Your task to perform on an android device: Open Chrome and go to settings Image 0: 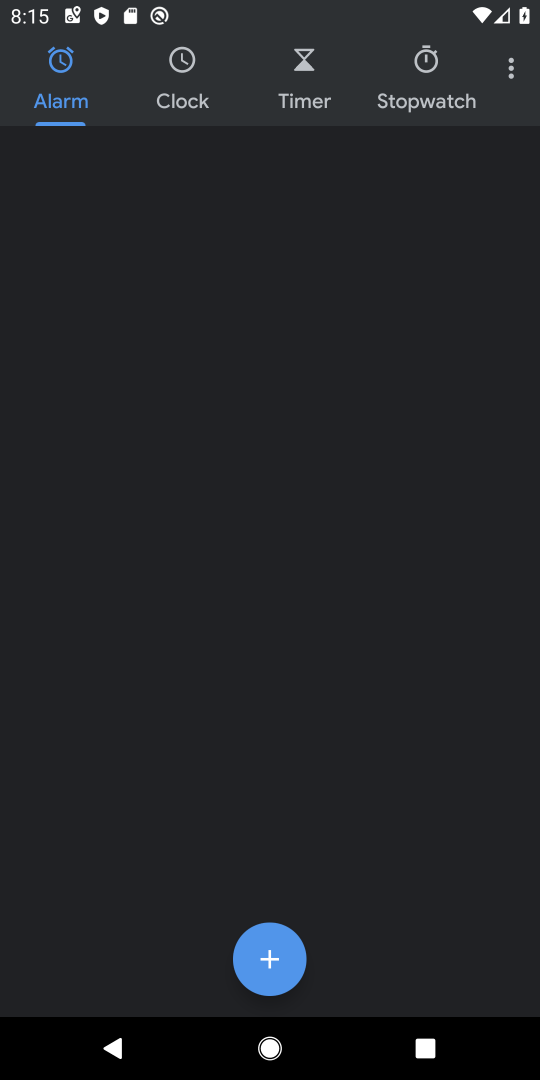
Step 0: press home button
Your task to perform on an android device: Open Chrome and go to settings Image 1: 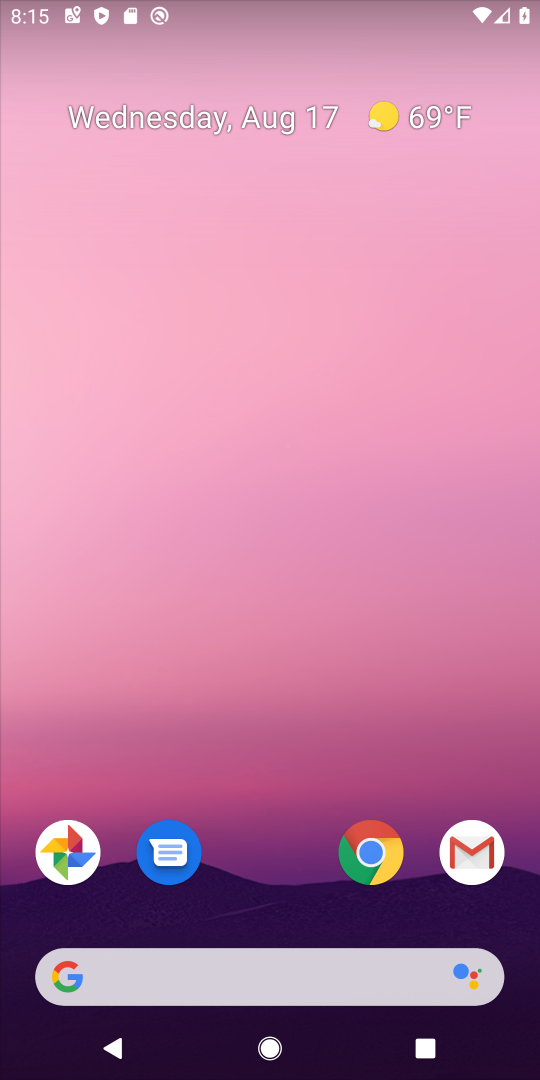
Step 1: click (368, 843)
Your task to perform on an android device: Open Chrome and go to settings Image 2: 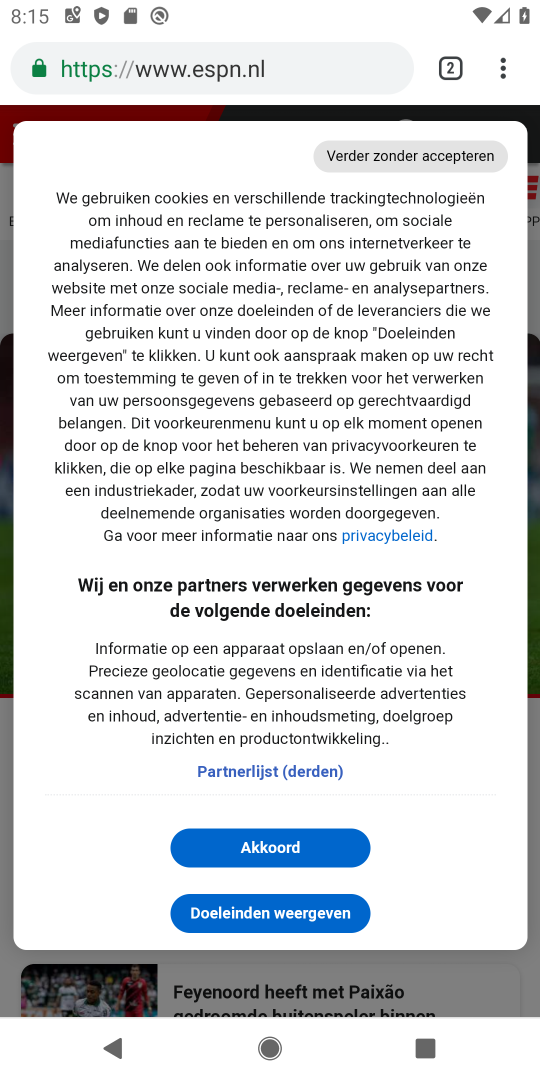
Step 2: click (494, 75)
Your task to perform on an android device: Open Chrome and go to settings Image 3: 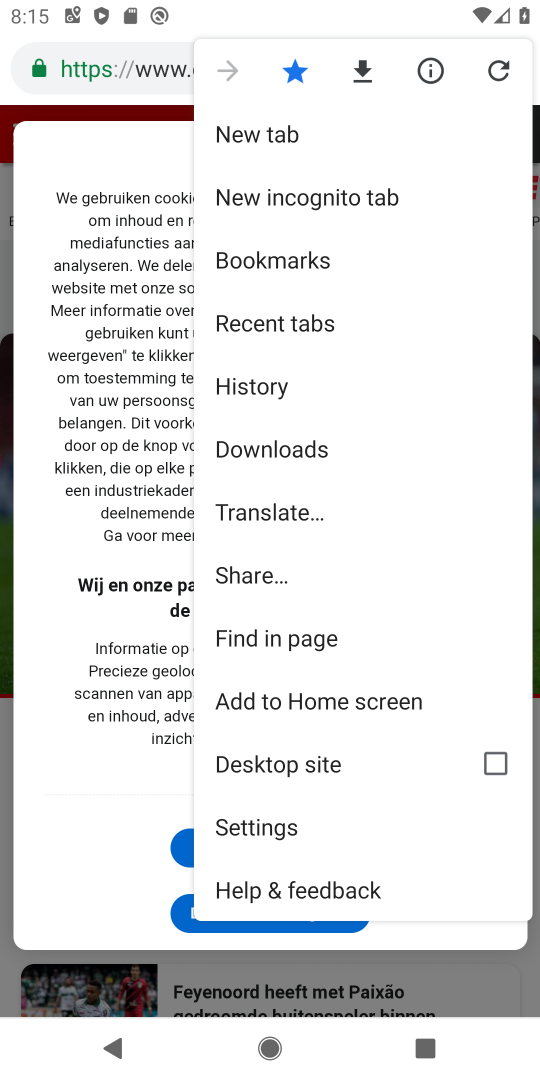
Step 3: click (264, 828)
Your task to perform on an android device: Open Chrome and go to settings Image 4: 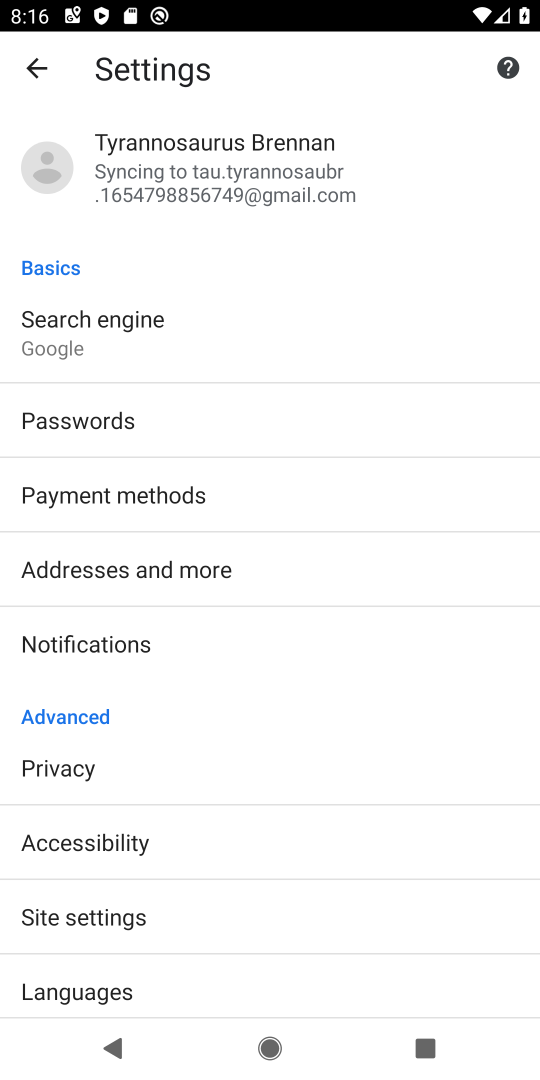
Step 4: task complete